Your task to perform on an android device: open device folders in google photos Image 0: 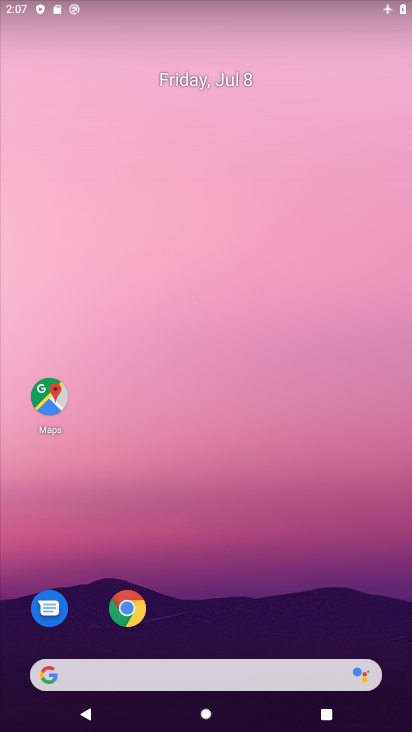
Step 0: drag from (217, 618) to (299, 82)
Your task to perform on an android device: open device folders in google photos Image 1: 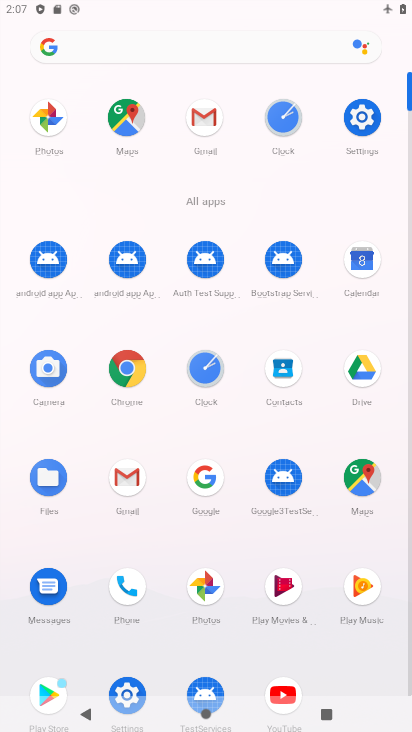
Step 1: click (200, 584)
Your task to perform on an android device: open device folders in google photos Image 2: 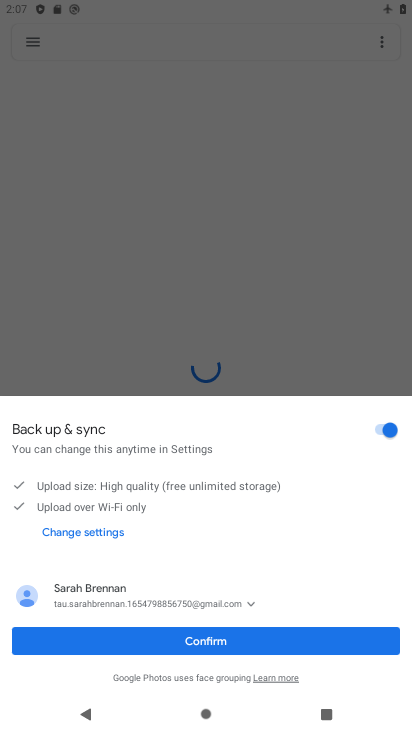
Step 2: drag from (37, 43) to (359, 233)
Your task to perform on an android device: open device folders in google photos Image 3: 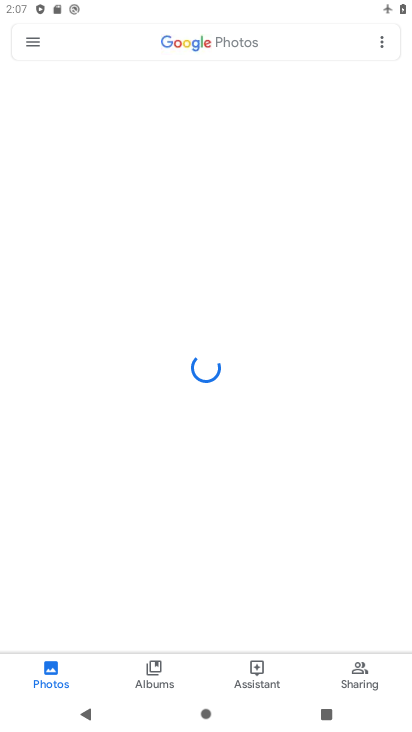
Step 3: click (185, 637)
Your task to perform on an android device: open device folders in google photos Image 4: 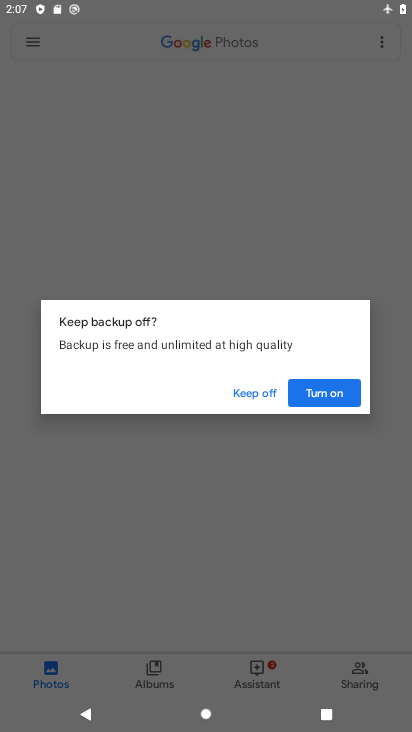
Step 4: click (268, 483)
Your task to perform on an android device: open device folders in google photos Image 5: 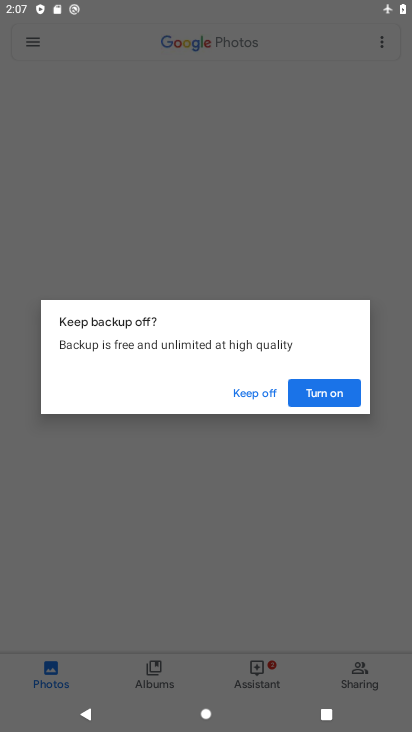
Step 5: click (260, 392)
Your task to perform on an android device: open device folders in google photos Image 6: 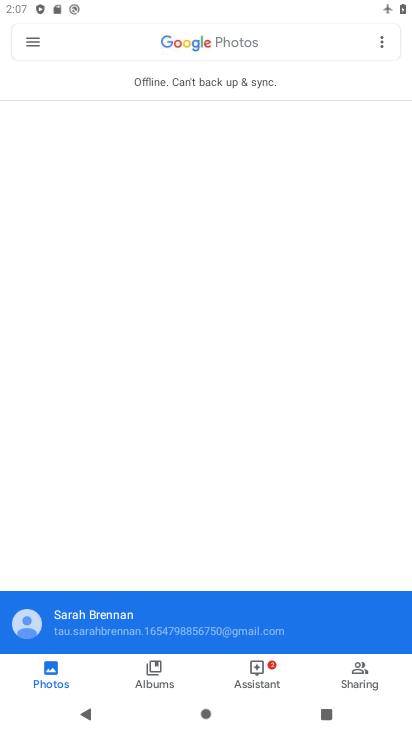
Step 6: click (37, 46)
Your task to perform on an android device: open device folders in google photos Image 7: 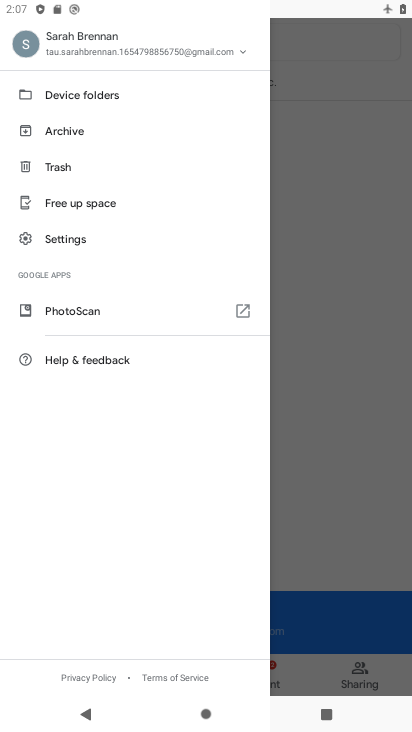
Step 7: click (83, 100)
Your task to perform on an android device: open device folders in google photos Image 8: 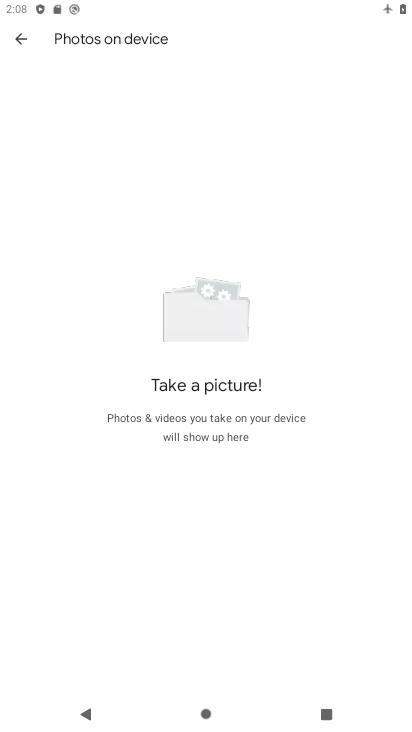
Step 8: task complete